Your task to perform on an android device: refresh tabs in the chrome app Image 0: 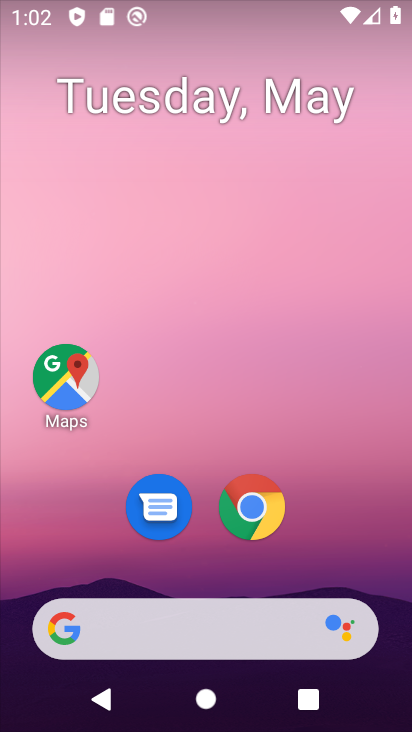
Step 0: click (272, 524)
Your task to perform on an android device: refresh tabs in the chrome app Image 1: 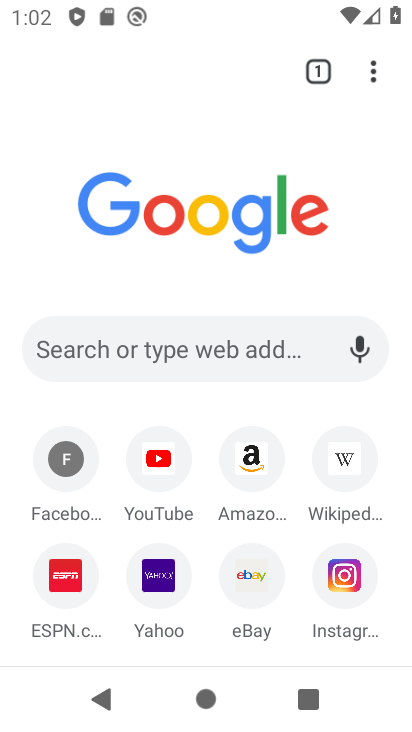
Step 1: click (372, 62)
Your task to perform on an android device: refresh tabs in the chrome app Image 2: 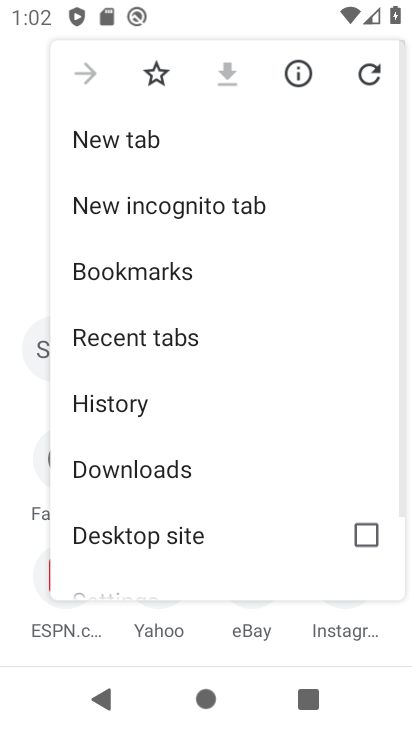
Step 2: click (370, 65)
Your task to perform on an android device: refresh tabs in the chrome app Image 3: 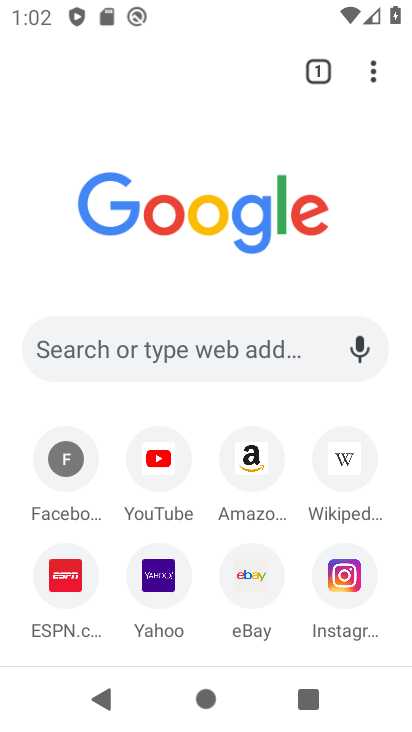
Step 3: task complete